Your task to perform on an android device: delete a single message in the gmail app Image 0: 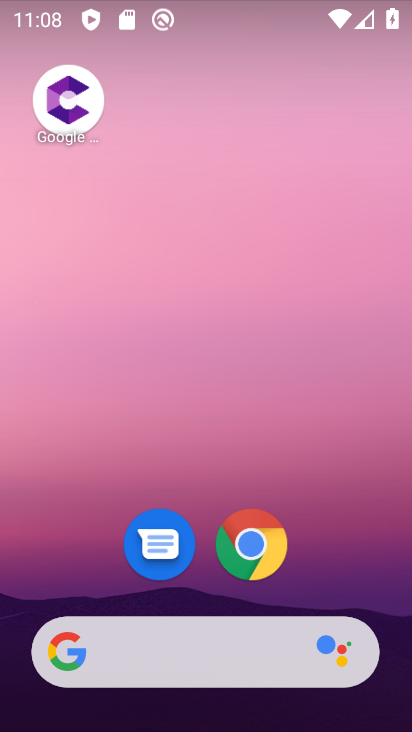
Step 0: drag from (333, 504) to (263, 1)
Your task to perform on an android device: delete a single message in the gmail app Image 1: 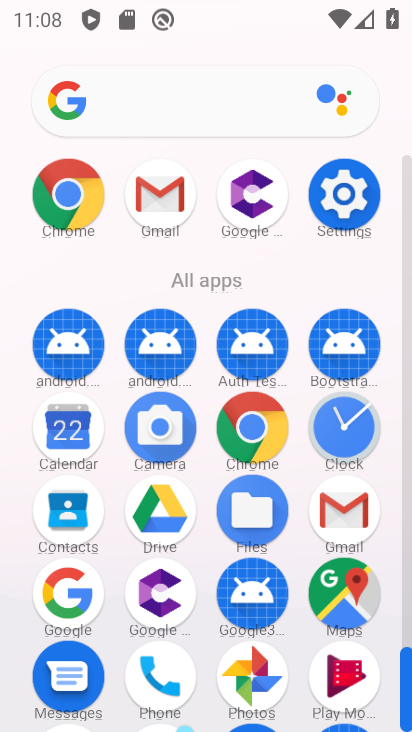
Step 1: click (148, 187)
Your task to perform on an android device: delete a single message in the gmail app Image 2: 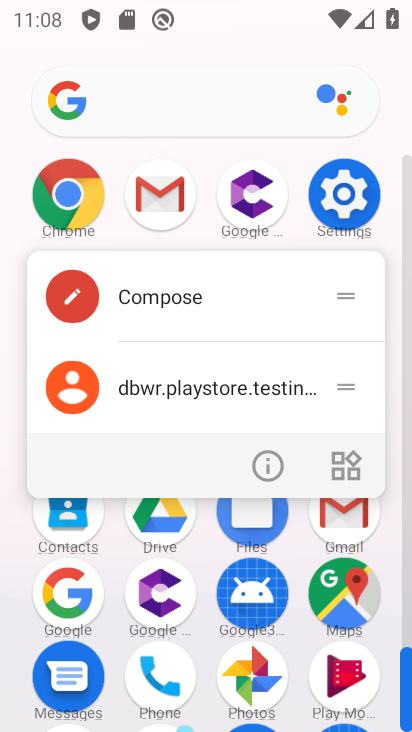
Step 2: click (148, 187)
Your task to perform on an android device: delete a single message in the gmail app Image 3: 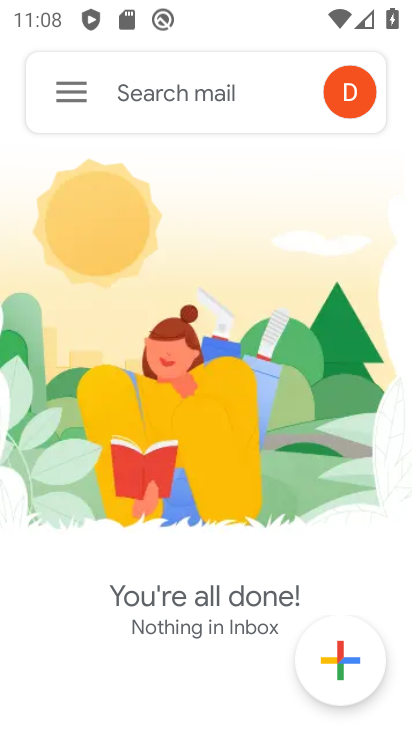
Step 3: task complete